Your task to perform on an android device: Is it going to rain today? Image 0: 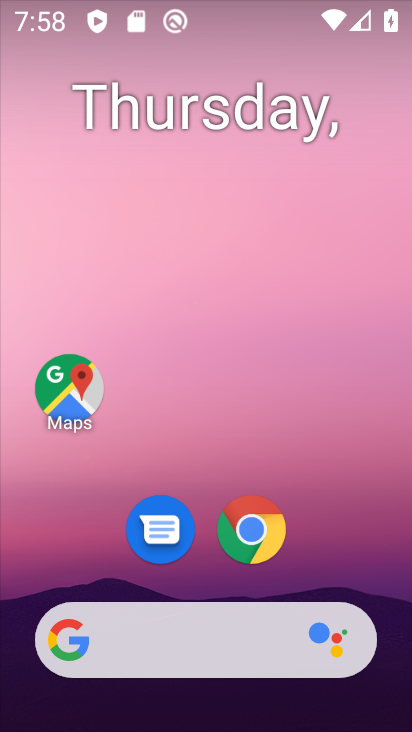
Step 0: press home button
Your task to perform on an android device: Is it going to rain today? Image 1: 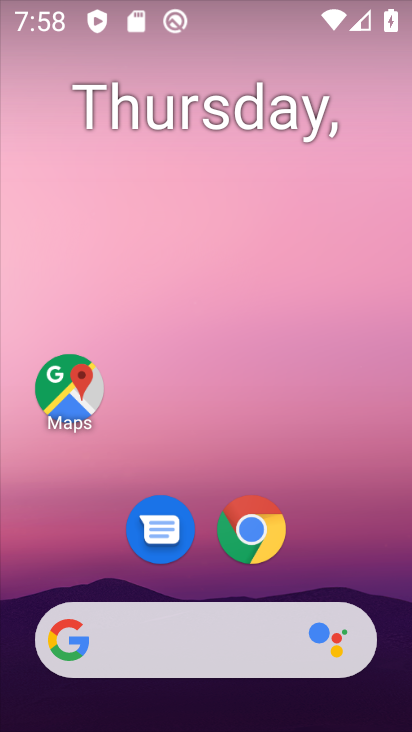
Step 1: click (82, 650)
Your task to perform on an android device: Is it going to rain today? Image 2: 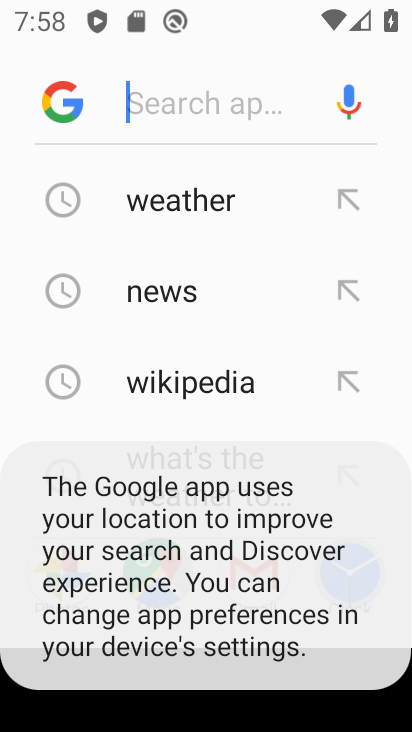
Step 2: click (212, 198)
Your task to perform on an android device: Is it going to rain today? Image 3: 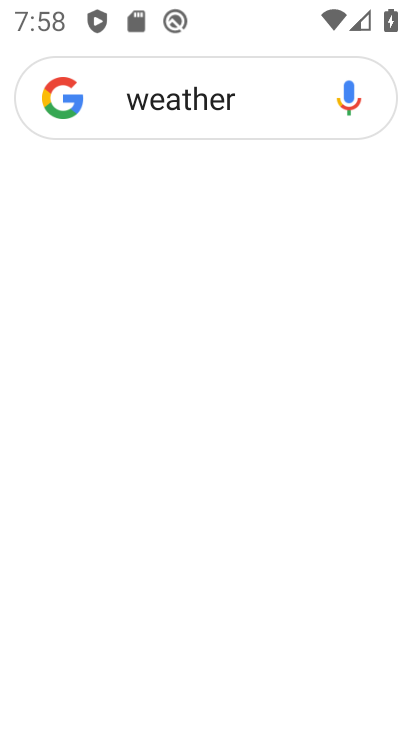
Step 3: click (188, 202)
Your task to perform on an android device: Is it going to rain today? Image 4: 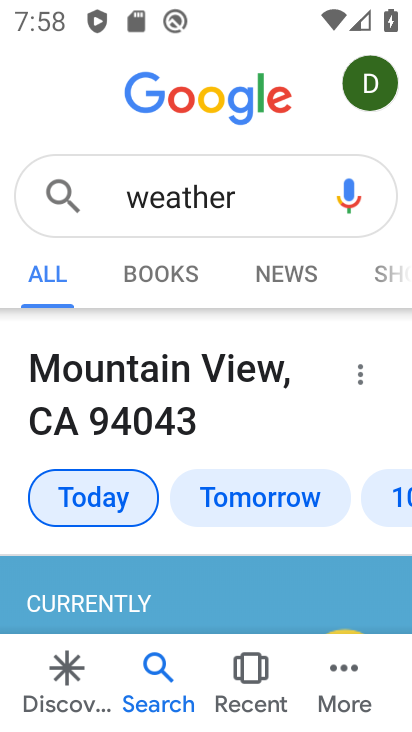
Step 4: task complete